Your task to perform on an android device: manage bookmarks in the chrome app Image 0: 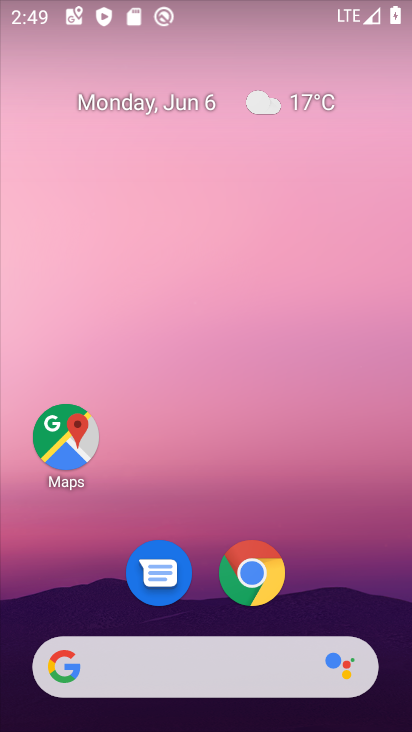
Step 0: drag from (362, 618) to (364, 141)
Your task to perform on an android device: manage bookmarks in the chrome app Image 1: 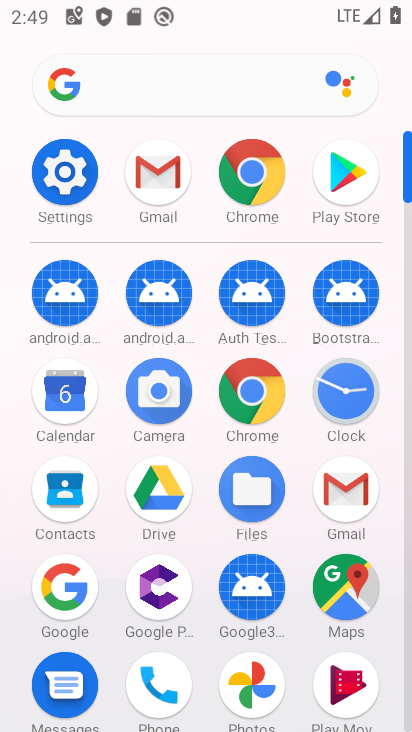
Step 1: click (239, 398)
Your task to perform on an android device: manage bookmarks in the chrome app Image 2: 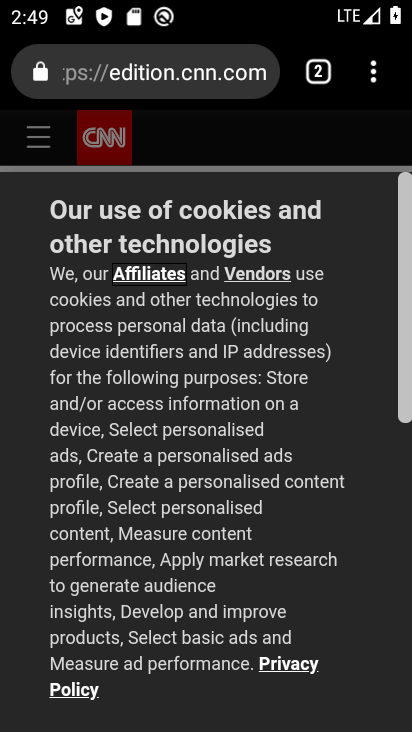
Step 2: click (371, 86)
Your task to perform on an android device: manage bookmarks in the chrome app Image 3: 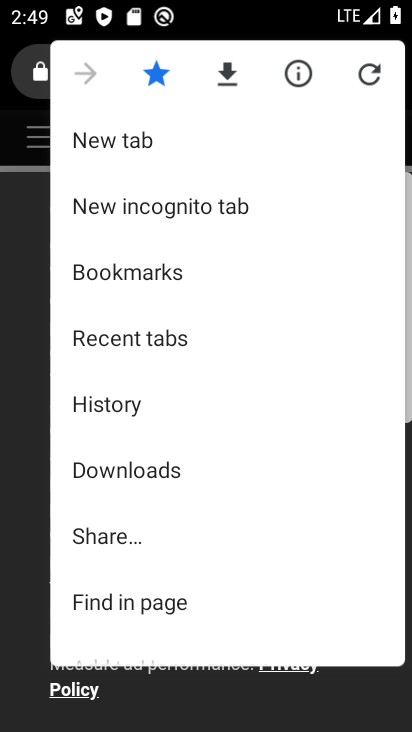
Step 3: drag from (296, 416) to (326, 106)
Your task to perform on an android device: manage bookmarks in the chrome app Image 4: 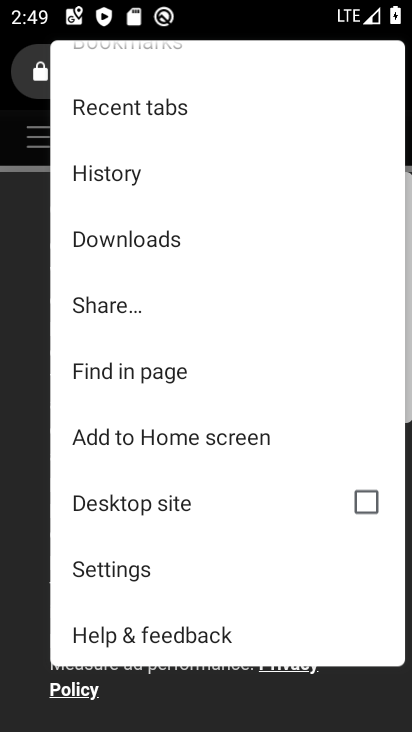
Step 4: drag from (318, 201) to (308, 433)
Your task to perform on an android device: manage bookmarks in the chrome app Image 5: 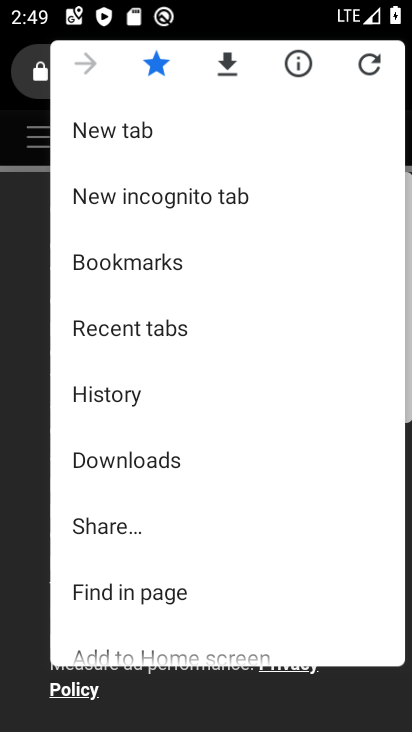
Step 5: click (203, 273)
Your task to perform on an android device: manage bookmarks in the chrome app Image 6: 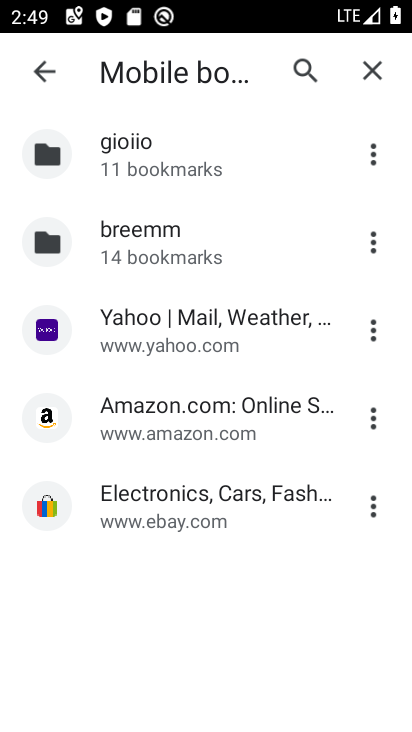
Step 6: click (370, 162)
Your task to perform on an android device: manage bookmarks in the chrome app Image 7: 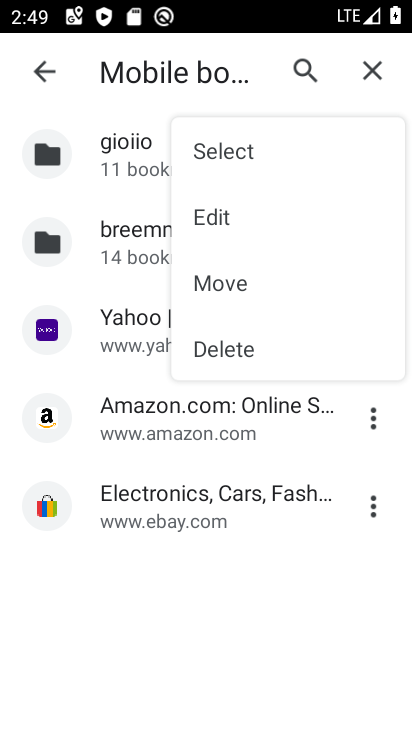
Step 7: click (262, 225)
Your task to perform on an android device: manage bookmarks in the chrome app Image 8: 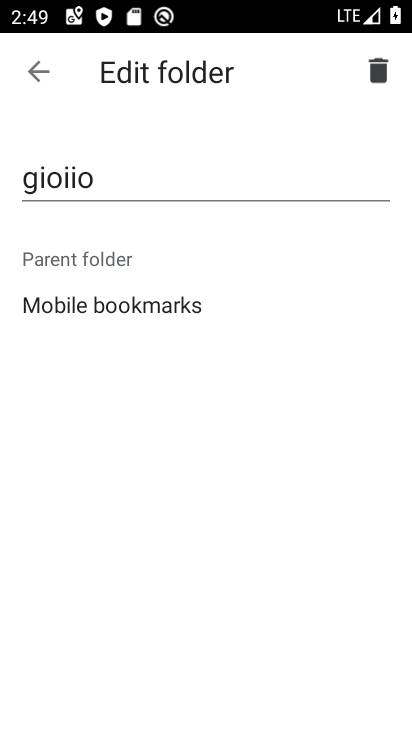
Step 8: click (127, 185)
Your task to perform on an android device: manage bookmarks in the chrome app Image 9: 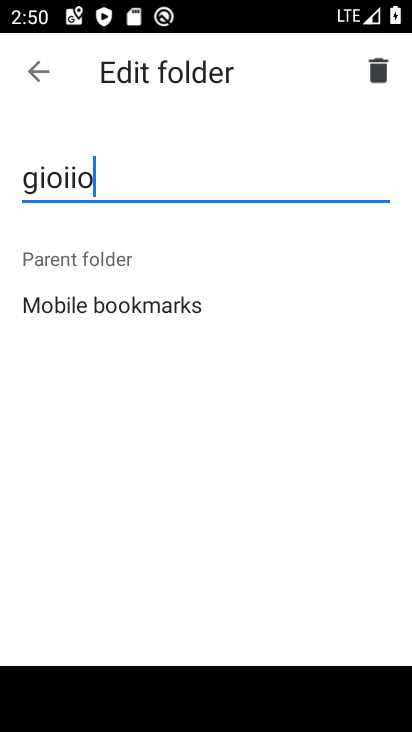
Step 9: type "oo"
Your task to perform on an android device: manage bookmarks in the chrome app Image 10: 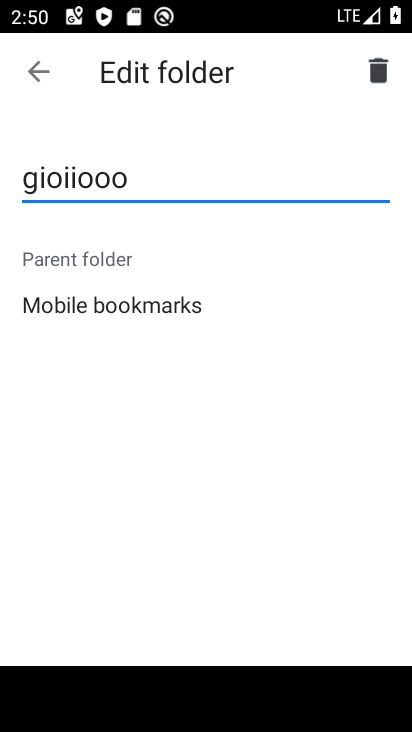
Step 10: click (44, 71)
Your task to perform on an android device: manage bookmarks in the chrome app Image 11: 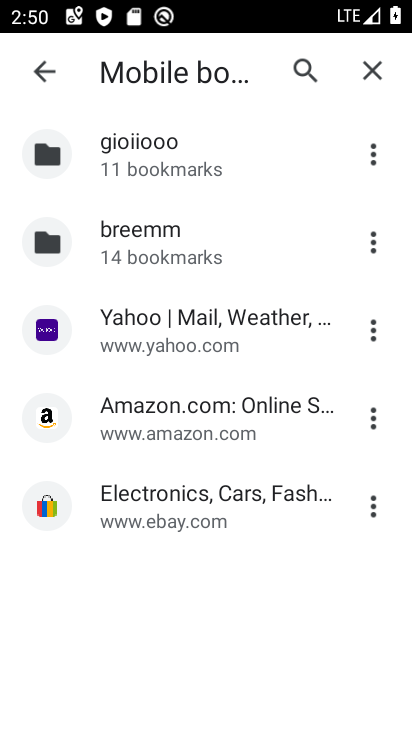
Step 11: task complete